Your task to perform on an android device: Open the map Image 0: 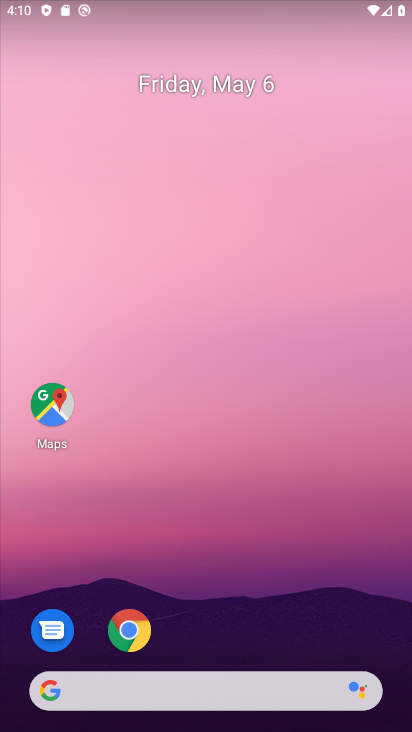
Step 0: drag from (276, 652) to (228, 78)
Your task to perform on an android device: Open the map Image 1: 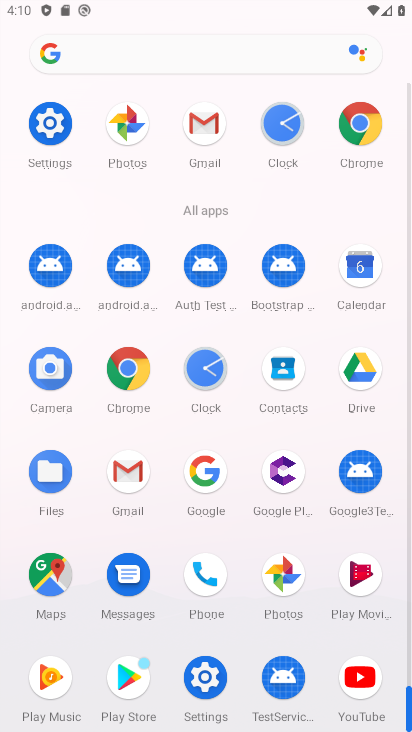
Step 1: click (56, 577)
Your task to perform on an android device: Open the map Image 2: 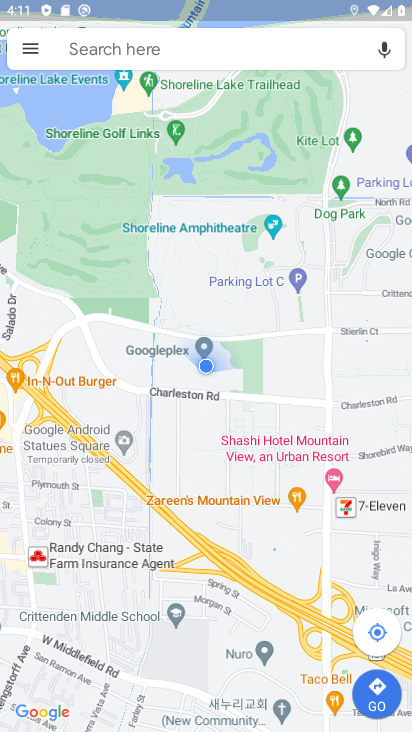
Step 2: task complete